Your task to perform on an android device: change timer sound Image 0: 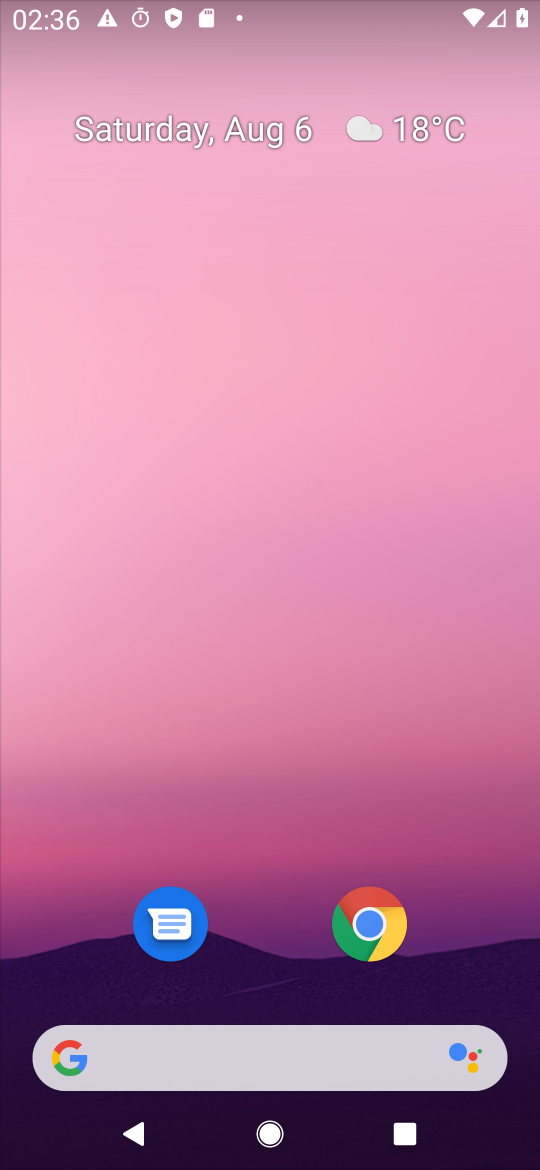
Step 0: drag from (276, 1054) to (155, 63)
Your task to perform on an android device: change timer sound Image 1: 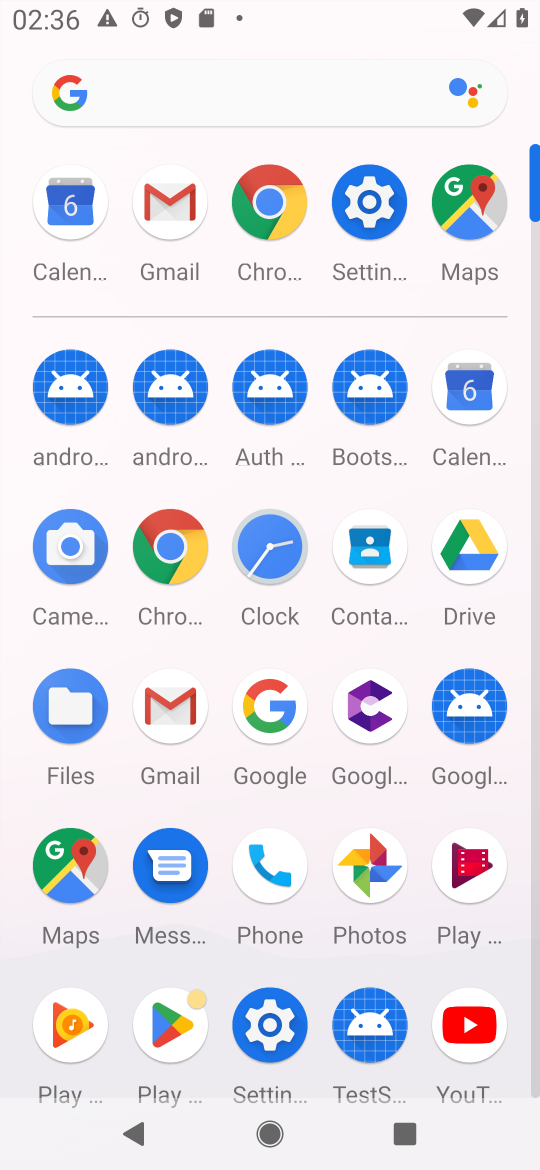
Step 1: click (285, 546)
Your task to perform on an android device: change timer sound Image 2: 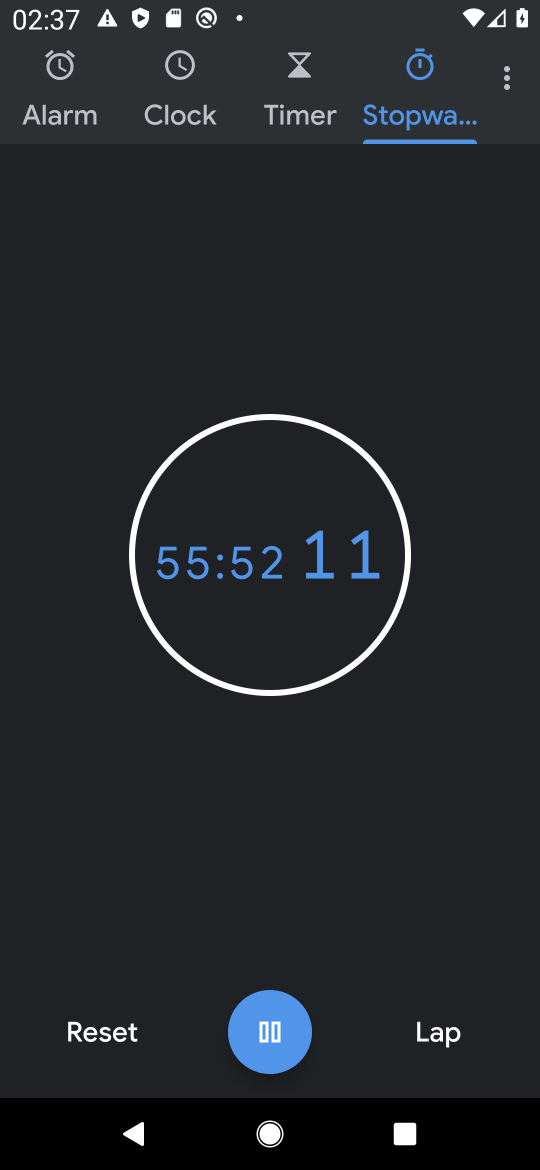
Step 2: click (504, 89)
Your task to perform on an android device: change timer sound Image 3: 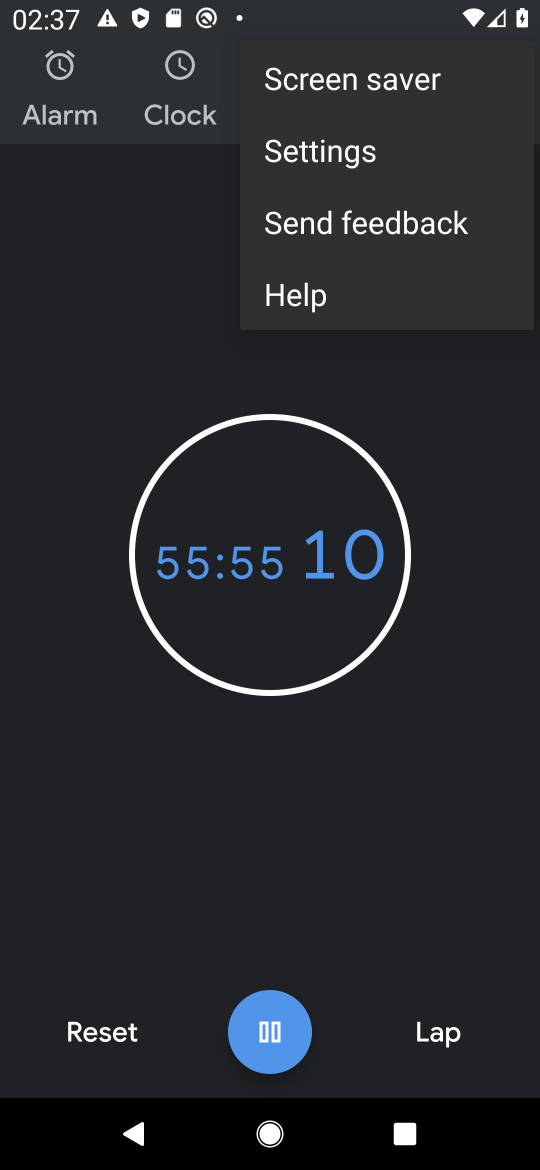
Step 3: click (309, 152)
Your task to perform on an android device: change timer sound Image 4: 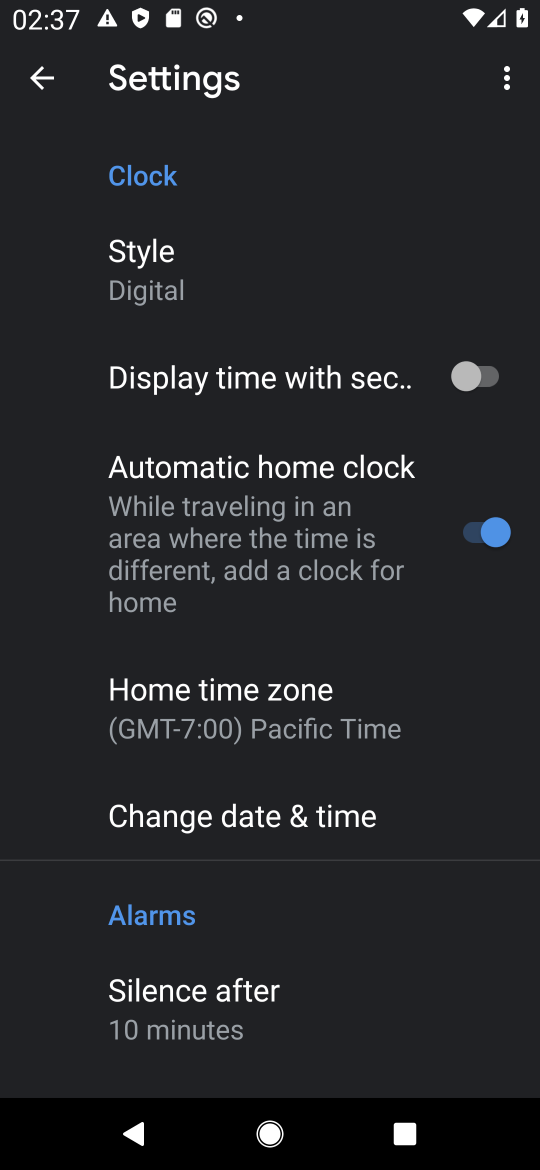
Step 4: drag from (415, 1023) to (403, 192)
Your task to perform on an android device: change timer sound Image 5: 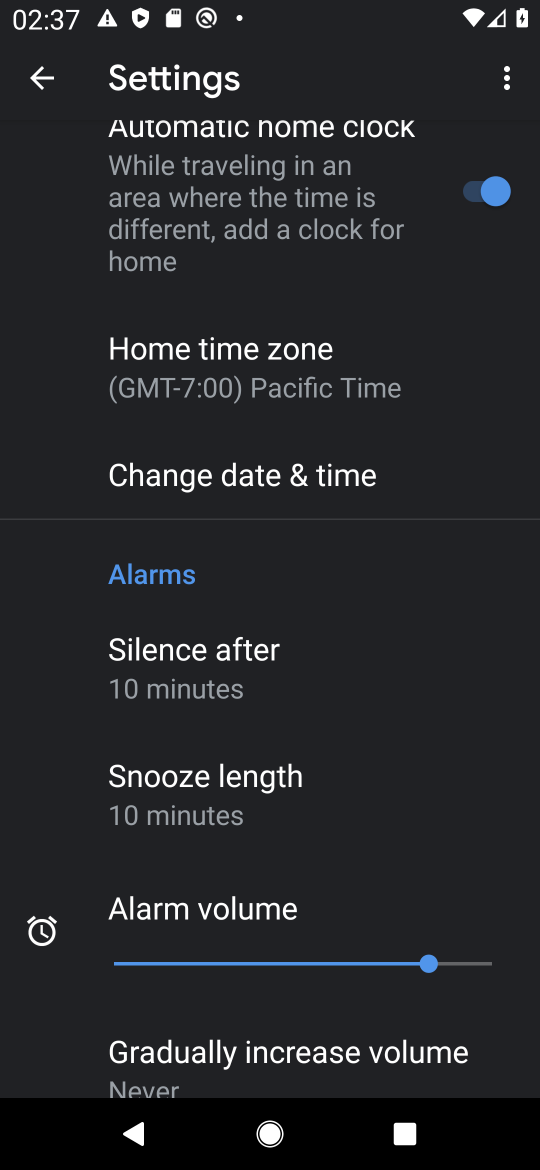
Step 5: drag from (465, 908) to (346, 524)
Your task to perform on an android device: change timer sound Image 6: 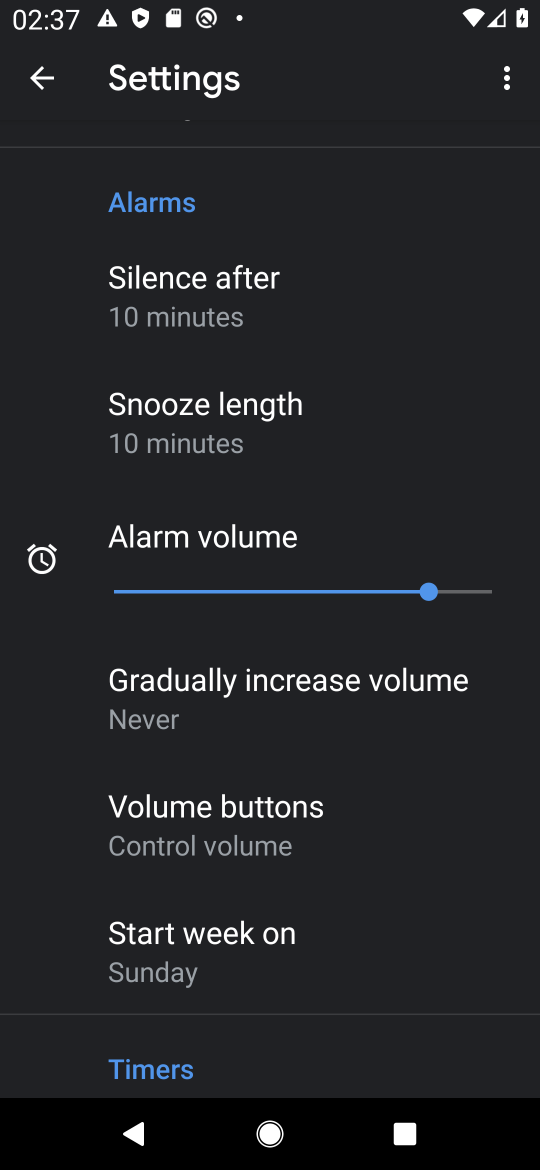
Step 6: drag from (405, 911) to (379, 139)
Your task to perform on an android device: change timer sound Image 7: 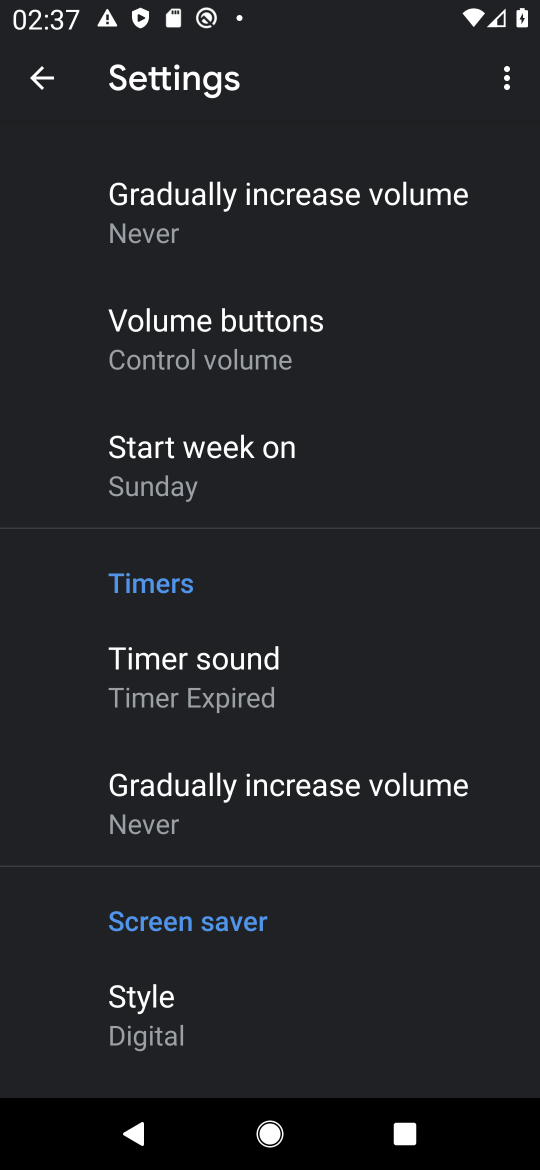
Step 7: click (241, 704)
Your task to perform on an android device: change timer sound Image 8: 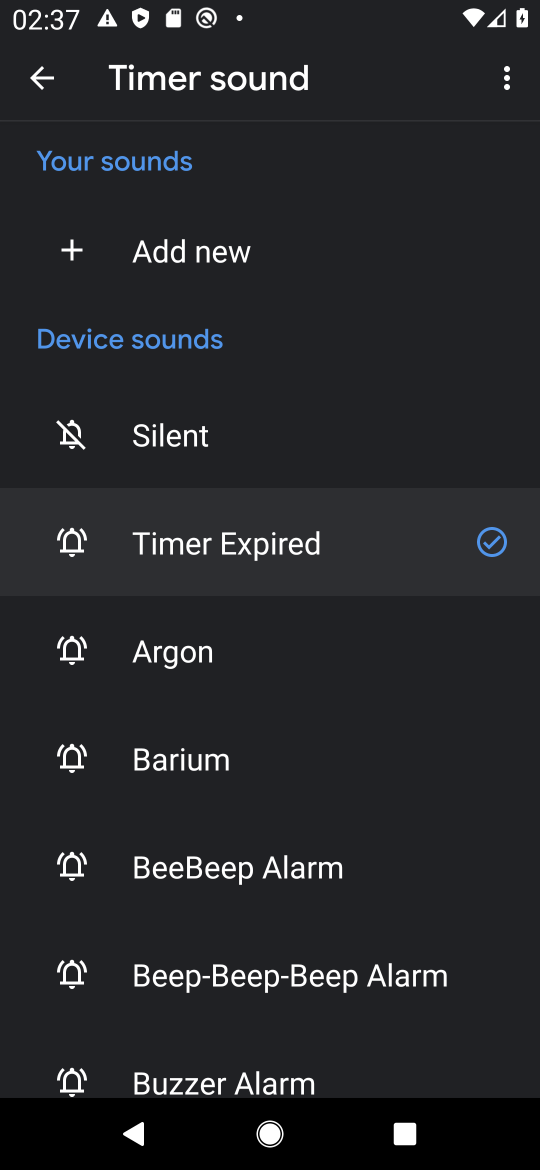
Step 8: click (220, 667)
Your task to perform on an android device: change timer sound Image 9: 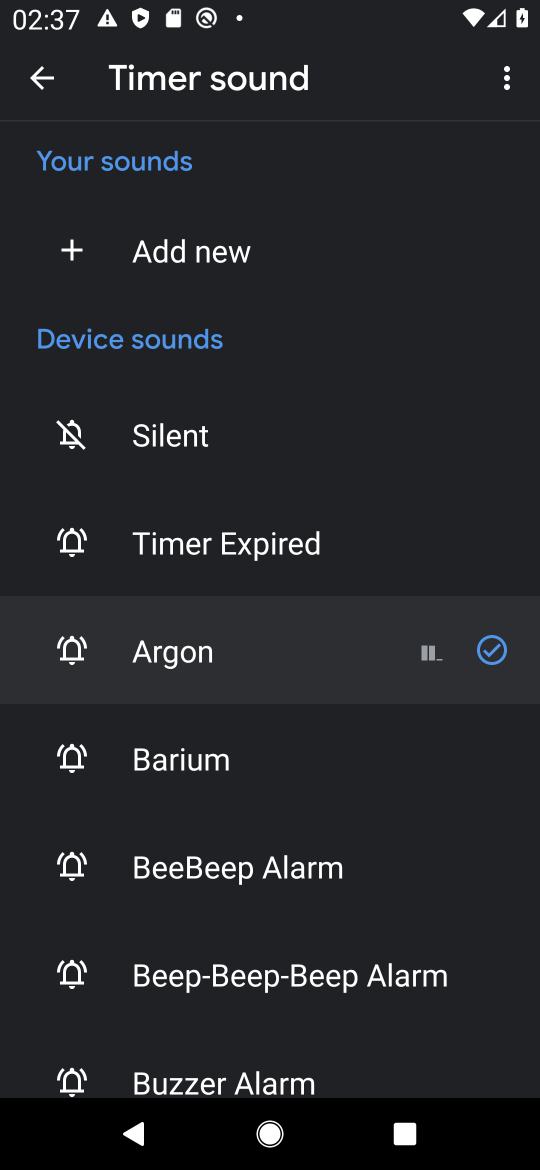
Step 9: task complete